Your task to perform on an android device: turn on airplane mode Image 0: 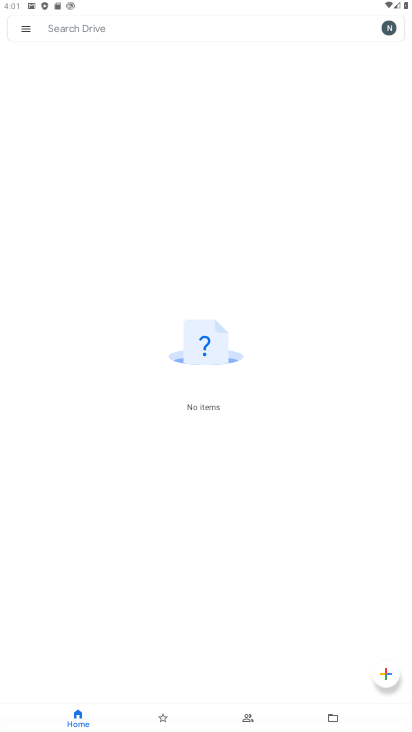
Step 0: press home button
Your task to perform on an android device: turn on airplane mode Image 1: 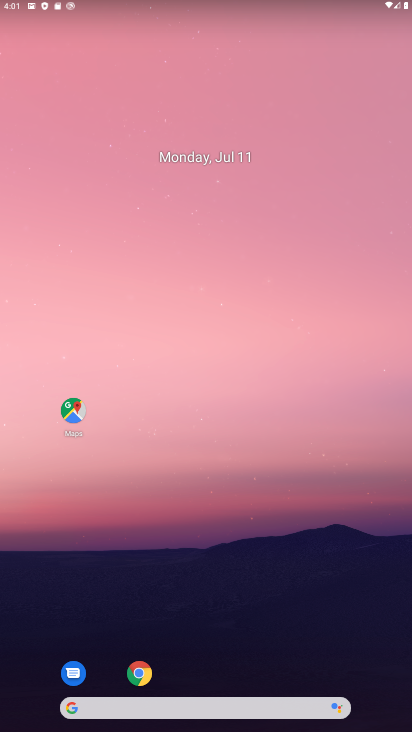
Step 1: drag from (245, 520) to (314, 153)
Your task to perform on an android device: turn on airplane mode Image 2: 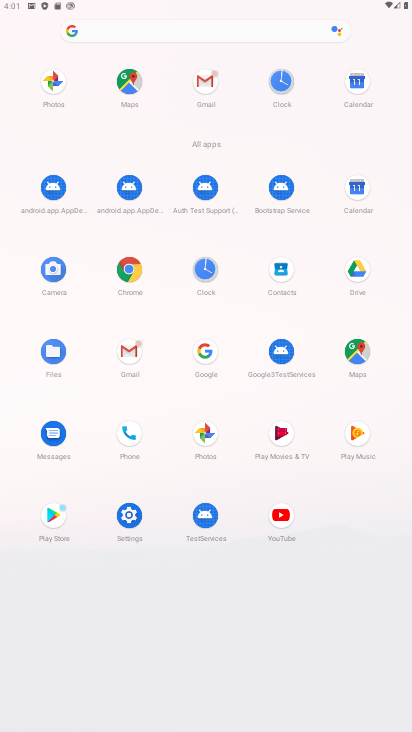
Step 2: click (122, 506)
Your task to perform on an android device: turn on airplane mode Image 3: 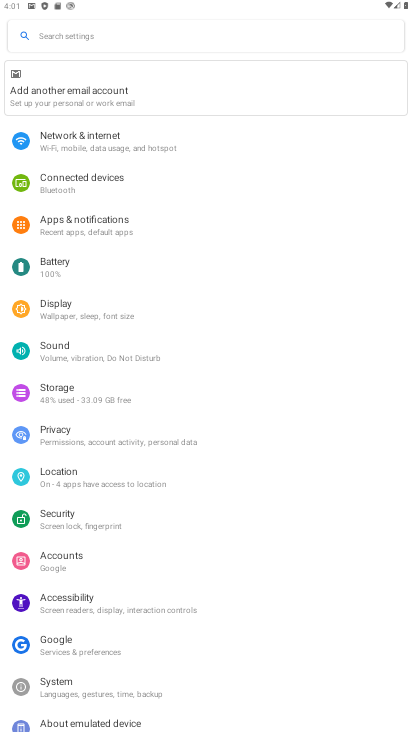
Step 3: click (182, 149)
Your task to perform on an android device: turn on airplane mode Image 4: 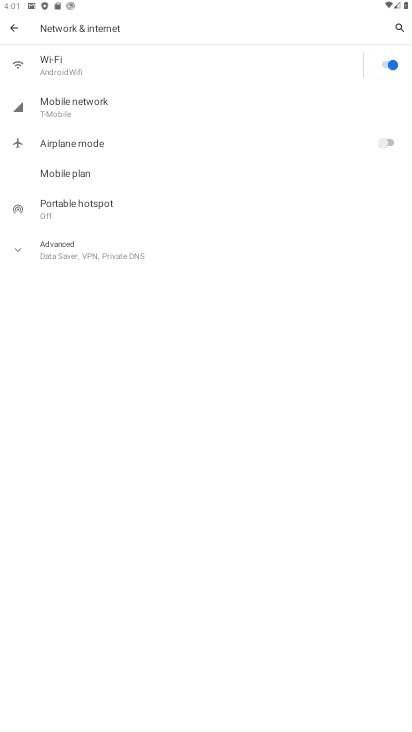
Step 4: click (130, 143)
Your task to perform on an android device: turn on airplane mode Image 5: 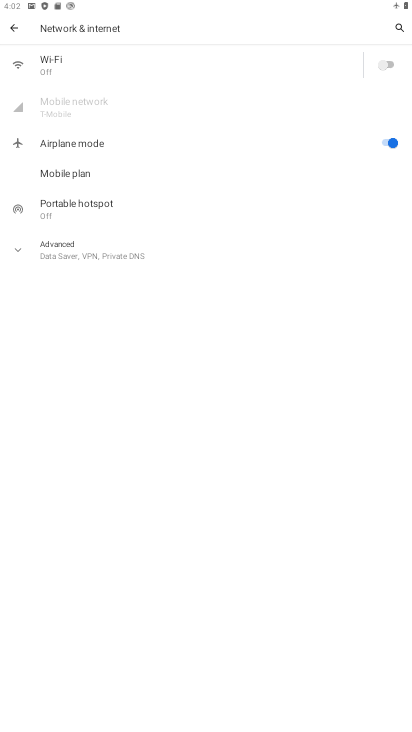
Step 5: task complete